Your task to perform on an android device: Go to accessibility settings Image 0: 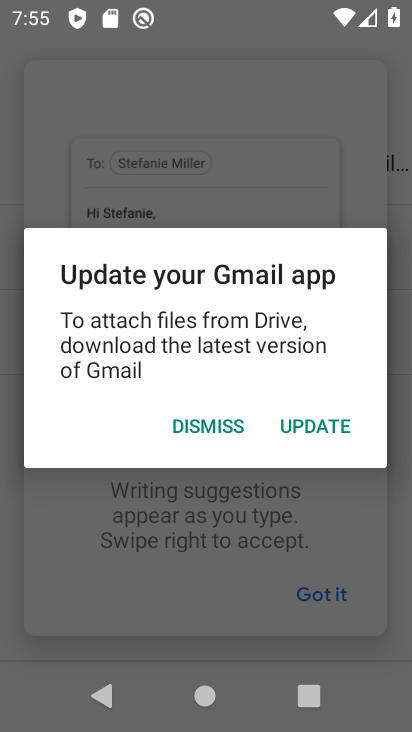
Step 0: press home button
Your task to perform on an android device: Go to accessibility settings Image 1: 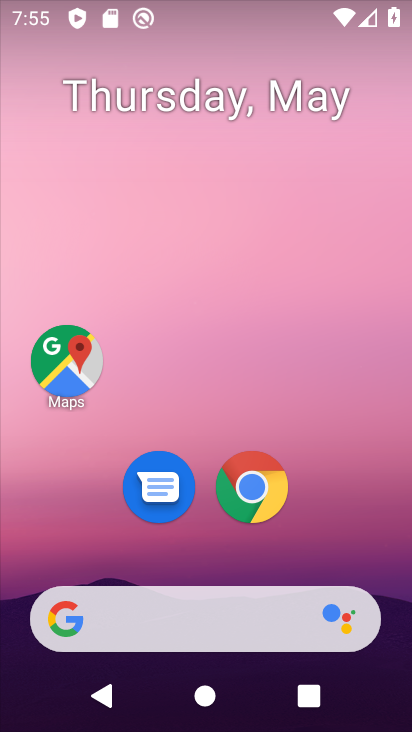
Step 1: drag from (164, 729) to (189, 90)
Your task to perform on an android device: Go to accessibility settings Image 2: 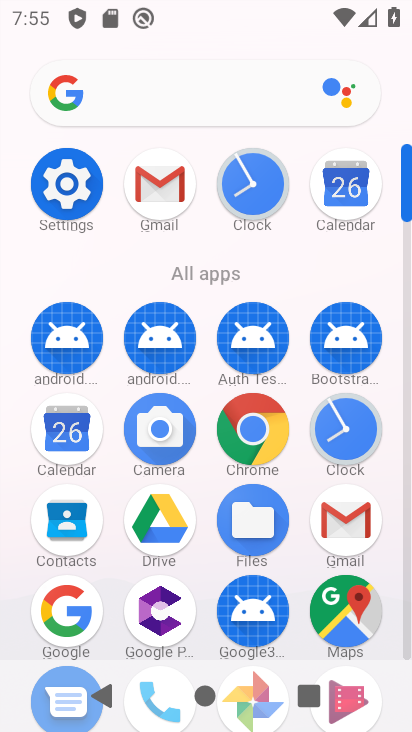
Step 2: click (73, 187)
Your task to perform on an android device: Go to accessibility settings Image 3: 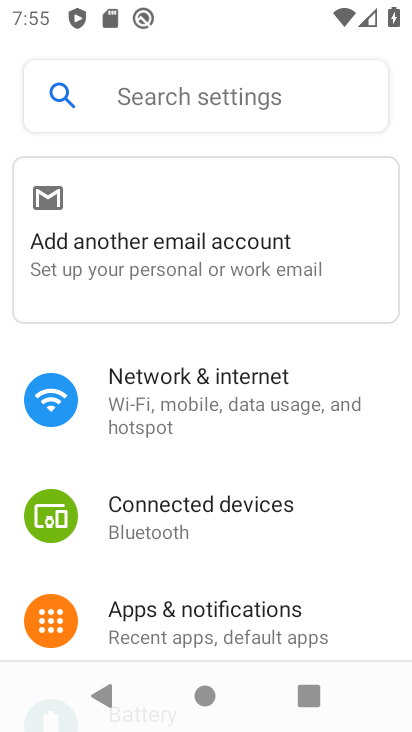
Step 3: drag from (299, 532) to (318, 226)
Your task to perform on an android device: Go to accessibility settings Image 4: 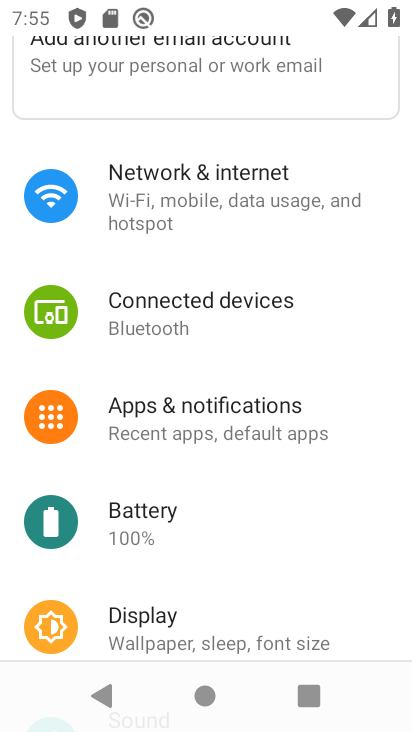
Step 4: drag from (275, 513) to (285, 205)
Your task to perform on an android device: Go to accessibility settings Image 5: 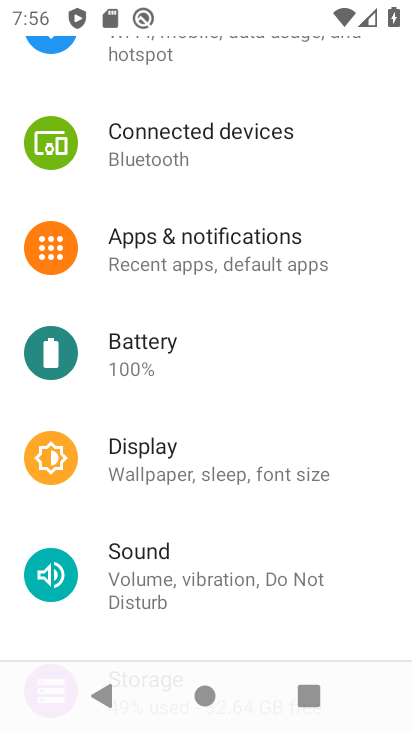
Step 5: drag from (243, 607) to (295, 212)
Your task to perform on an android device: Go to accessibility settings Image 6: 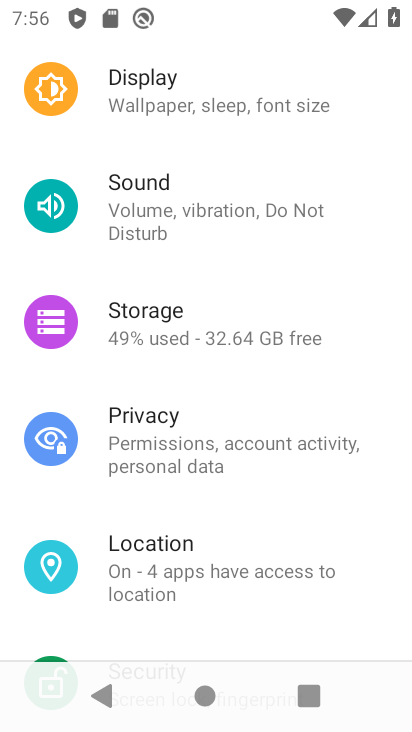
Step 6: drag from (241, 591) to (256, 167)
Your task to perform on an android device: Go to accessibility settings Image 7: 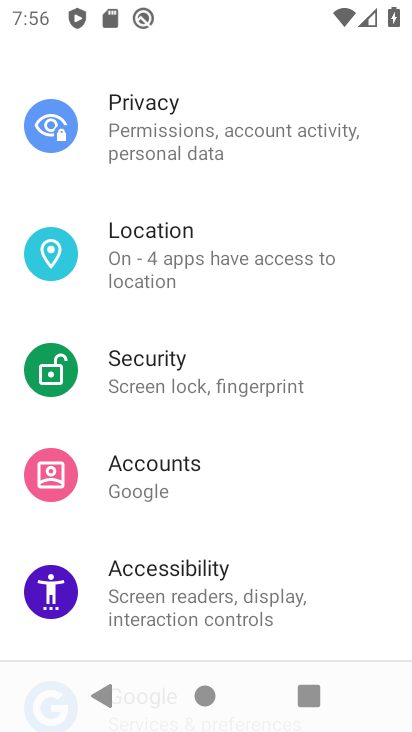
Step 7: click (205, 590)
Your task to perform on an android device: Go to accessibility settings Image 8: 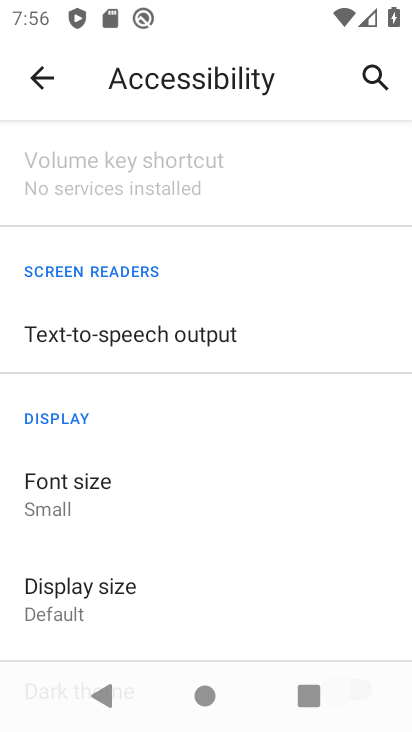
Step 8: task complete